Your task to perform on an android device: check storage Image 0: 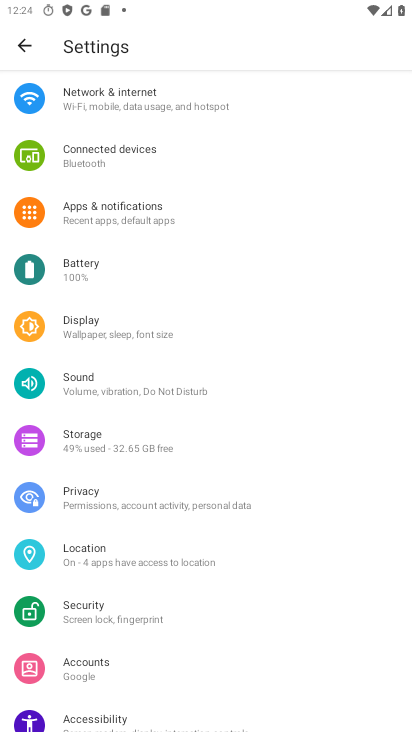
Step 0: click (138, 445)
Your task to perform on an android device: check storage Image 1: 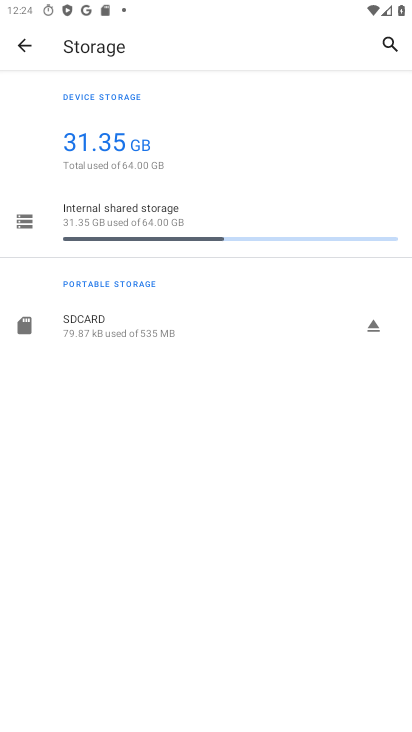
Step 1: task complete